Your task to perform on an android device: Go to Wikipedia Image 0: 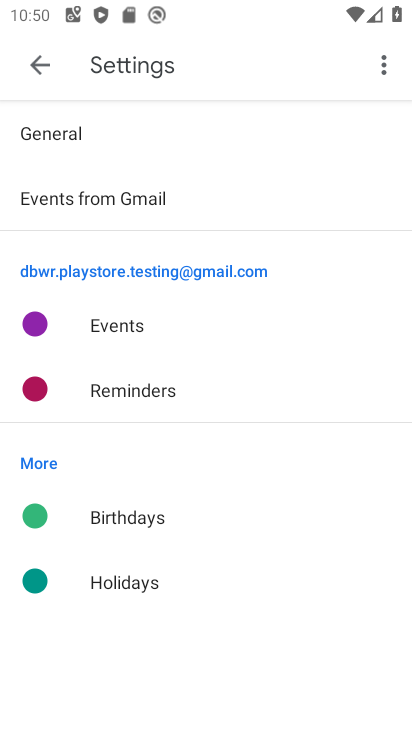
Step 0: press home button
Your task to perform on an android device: Go to Wikipedia Image 1: 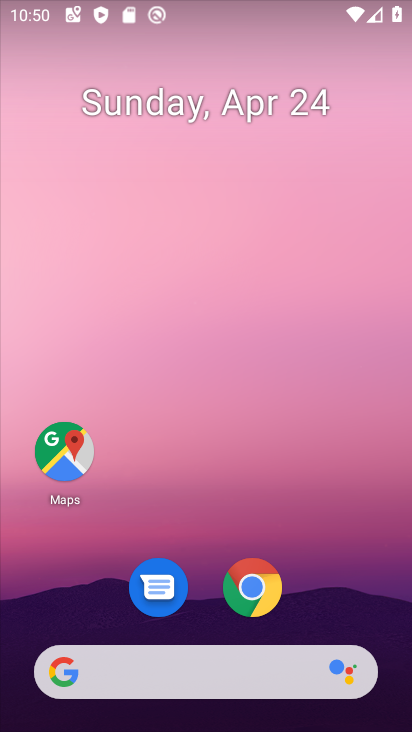
Step 1: click (258, 582)
Your task to perform on an android device: Go to Wikipedia Image 2: 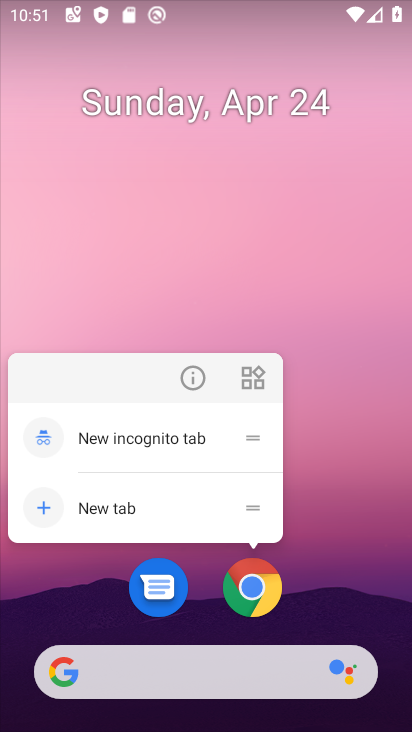
Step 2: drag from (337, 593) to (350, 130)
Your task to perform on an android device: Go to Wikipedia Image 3: 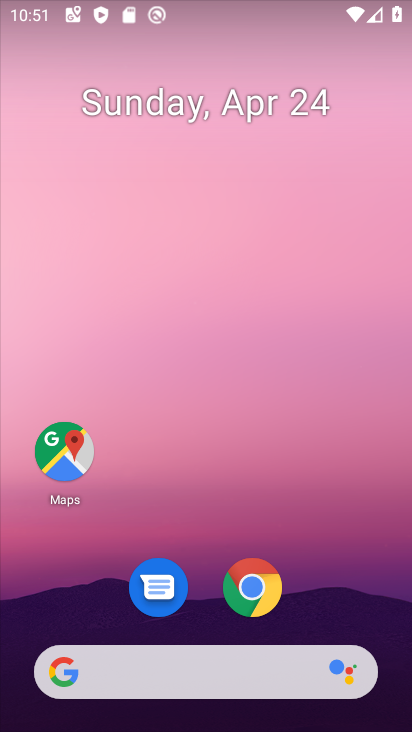
Step 3: drag from (324, 515) to (303, 123)
Your task to perform on an android device: Go to Wikipedia Image 4: 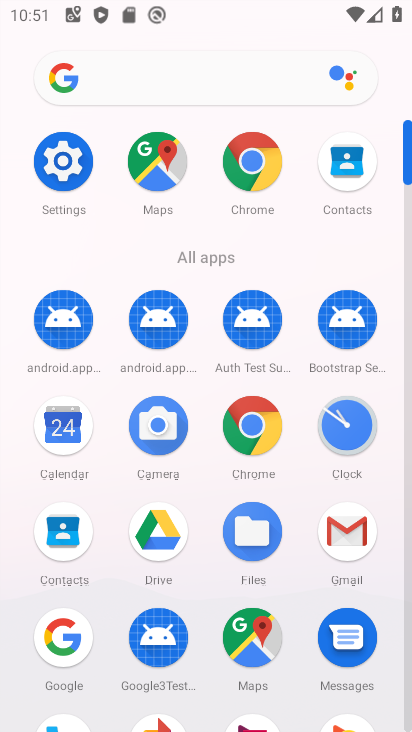
Step 4: click (255, 431)
Your task to perform on an android device: Go to Wikipedia Image 5: 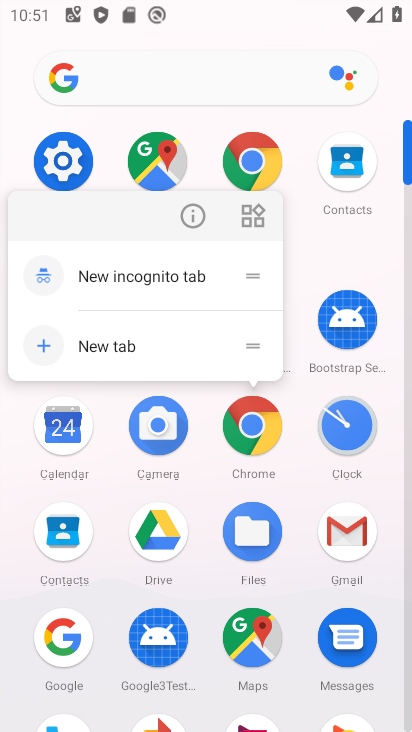
Step 5: click (255, 431)
Your task to perform on an android device: Go to Wikipedia Image 6: 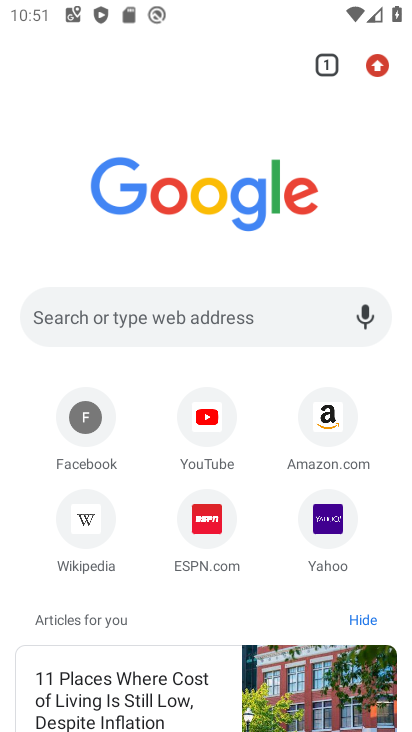
Step 6: click (107, 507)
Your task to perform on an android device: Go to Wikipedia Image 7: 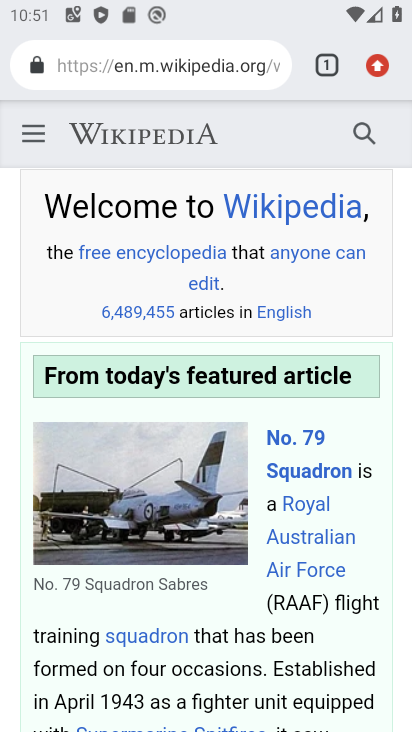
Step 7: task complete